Your task to perform on an android device: Open Chrome and go to settings Image 0: 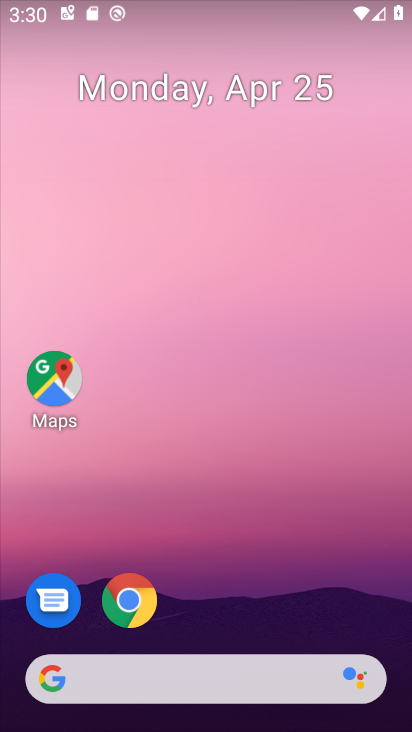
Step 0: drag from (259, 525) to (201, 21)
Your task to perform on an android device: Open Chrome and go to settings Image 1: 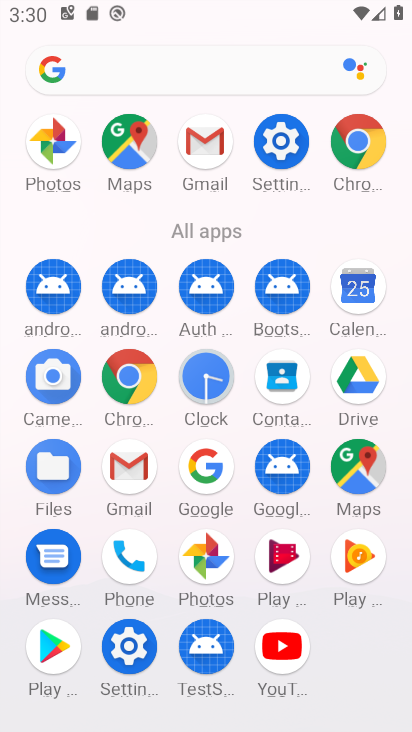
Step 1: drag from (10, 504) to (18, 148)
Your task to perform on an android device: Open Chrome and go to settings Image 2: 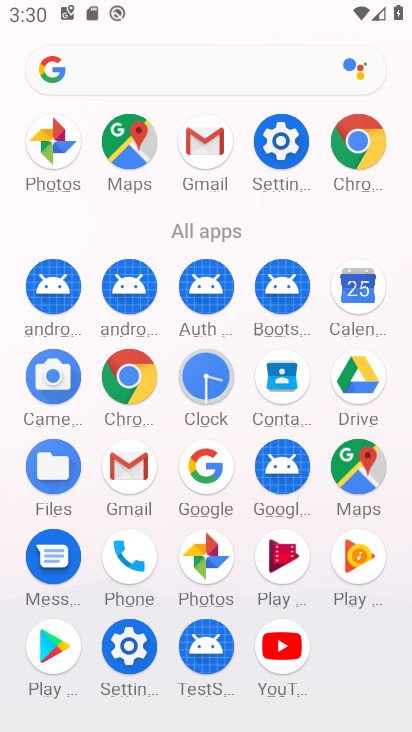
Step 2: click (125, 371)
Your task to perform on an android device: Open Chrome and go to settings Image 3: 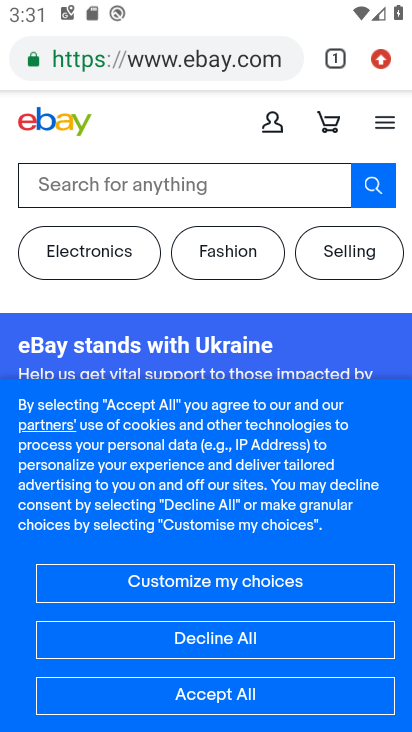
Step 3: task complete